Your task to perform on an android device: Search for Italian restaurants on Maps Image 0: 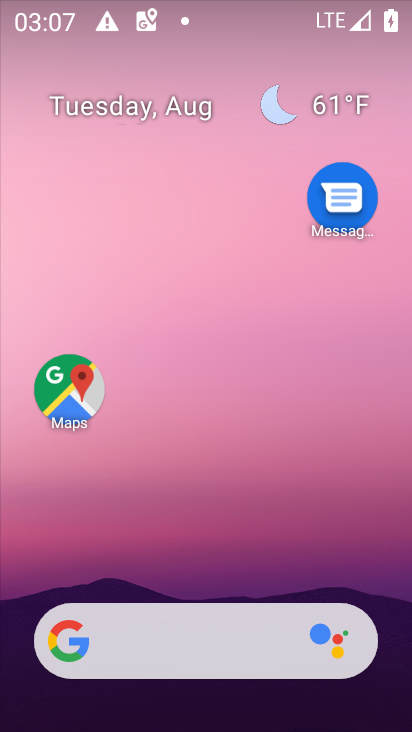
Step 0: drag from (241, 592) to (229, 165)
Your task to perform on an android device: Search for Italian restaurants on Maps Image 1: 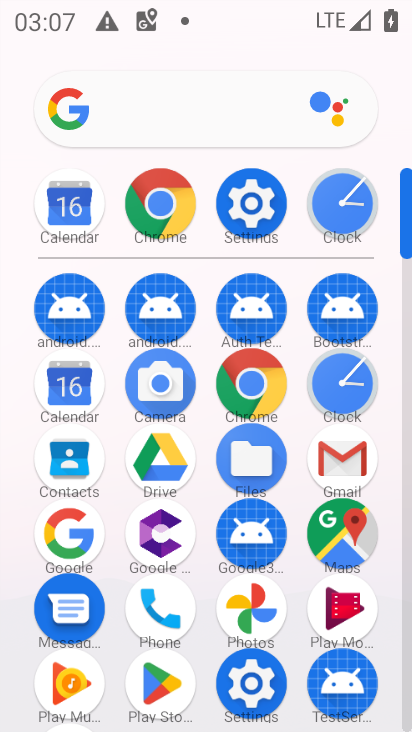
Step 1: click (340, 552)
Your task to perform on an android device: Search for Italian restaurants on Maps Image 2: 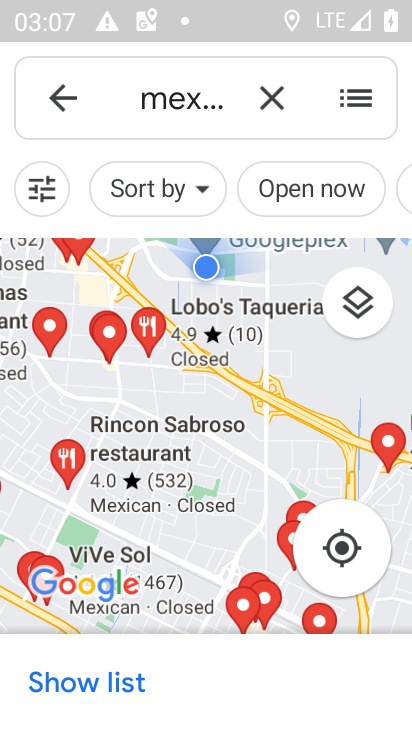
Step 2: task complete